Your task to perform on an android device: Open Reddit.com Image 0: 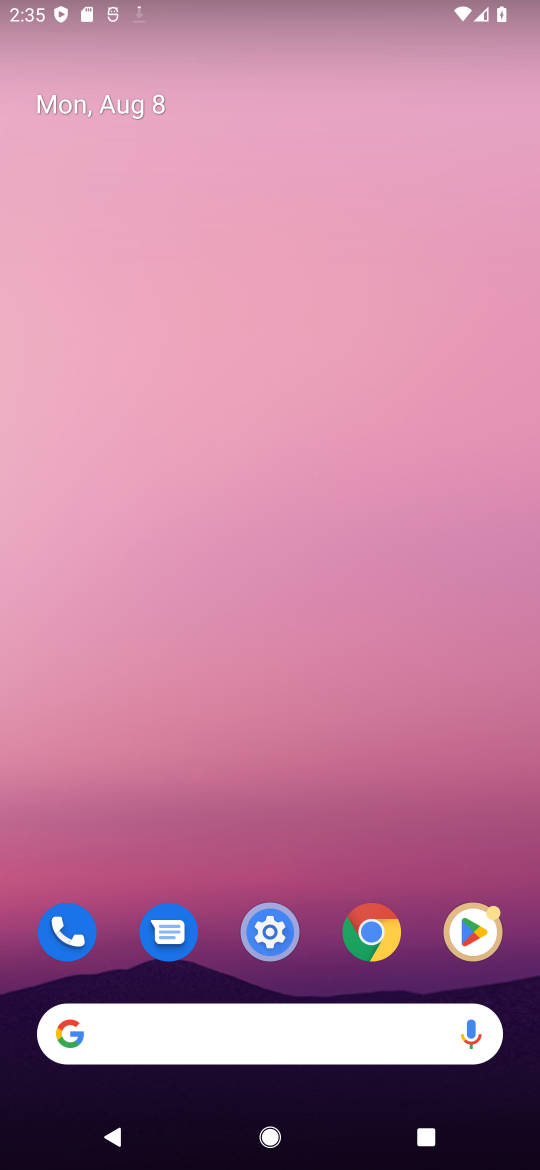
Step 0: drag from (324, 850) to (495, 206)
Your task to perform on an android device: Open Reddit.com Image 1: 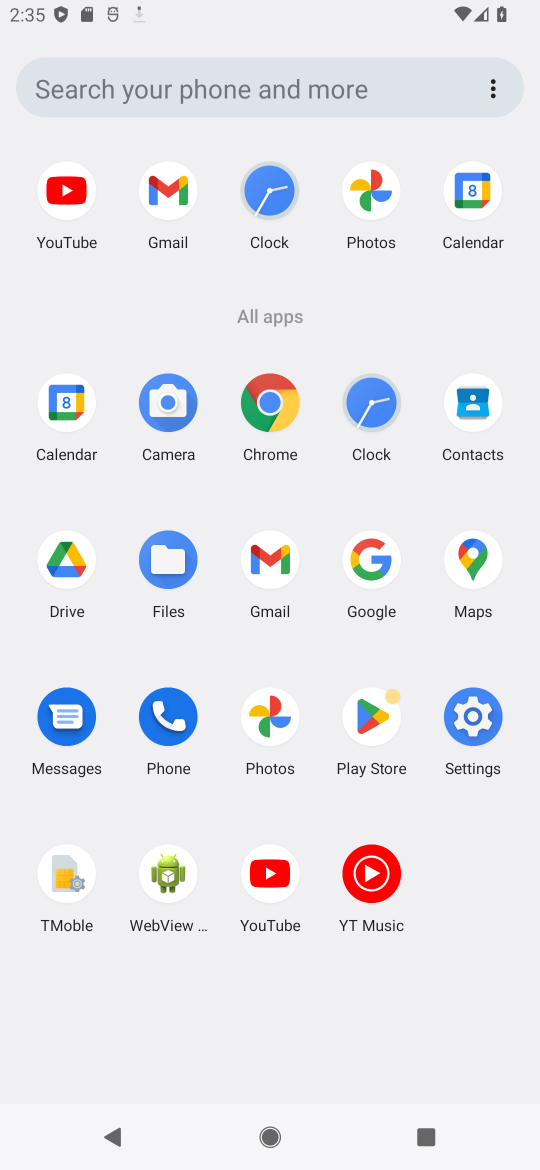
Step 1: click (271, 403)
Your task to perform on an android device: Open Reddit.com Image 2: 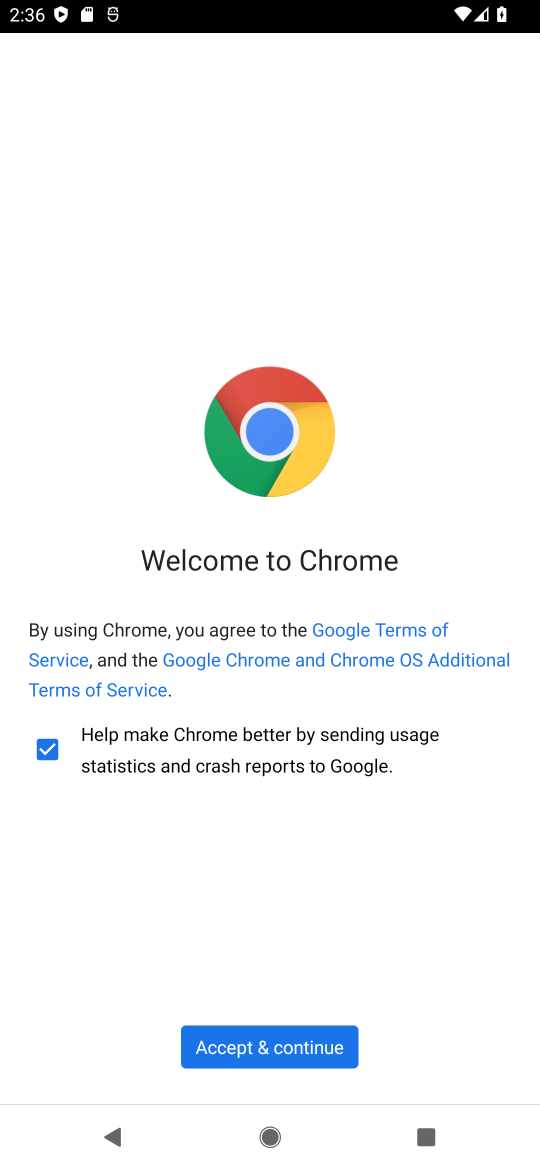
Step 2: click (337, 1032)
Your task to perform on an android device: Open Reddit.com Image 3: 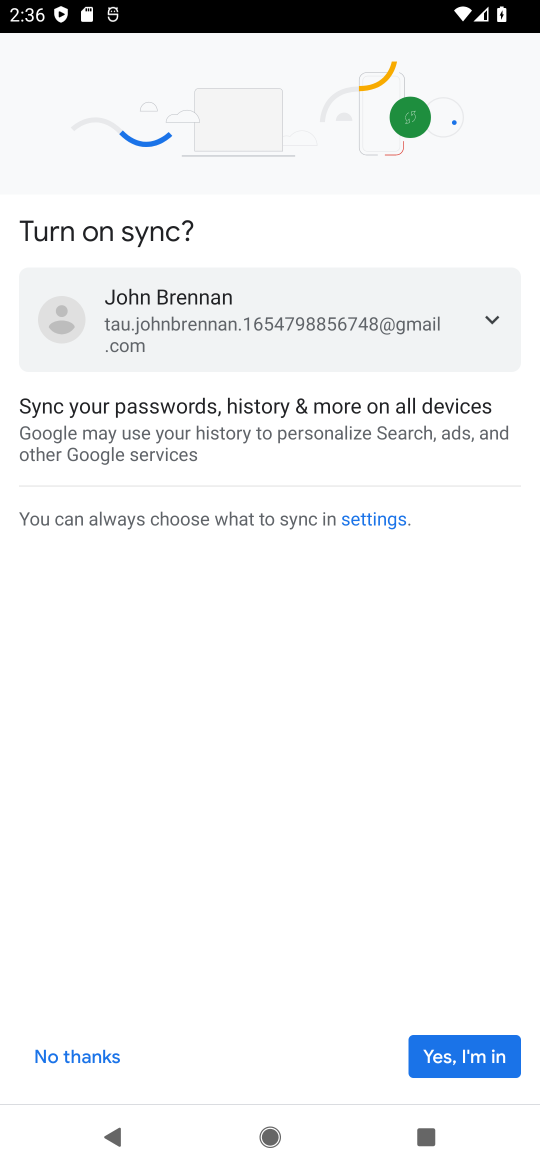
Step 3: click (471, 1048)
Your task to perform on an android device: Open Reddit.com Image 4: 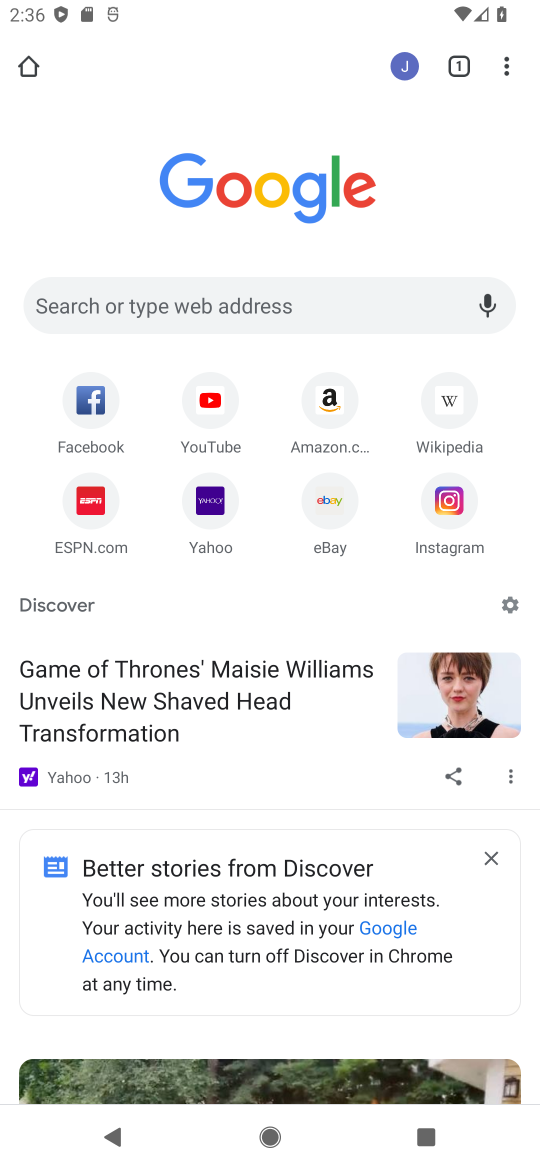
Step 4: click (303, 298)
Your task to perform on an android device: Open Reddit.com Image 5: 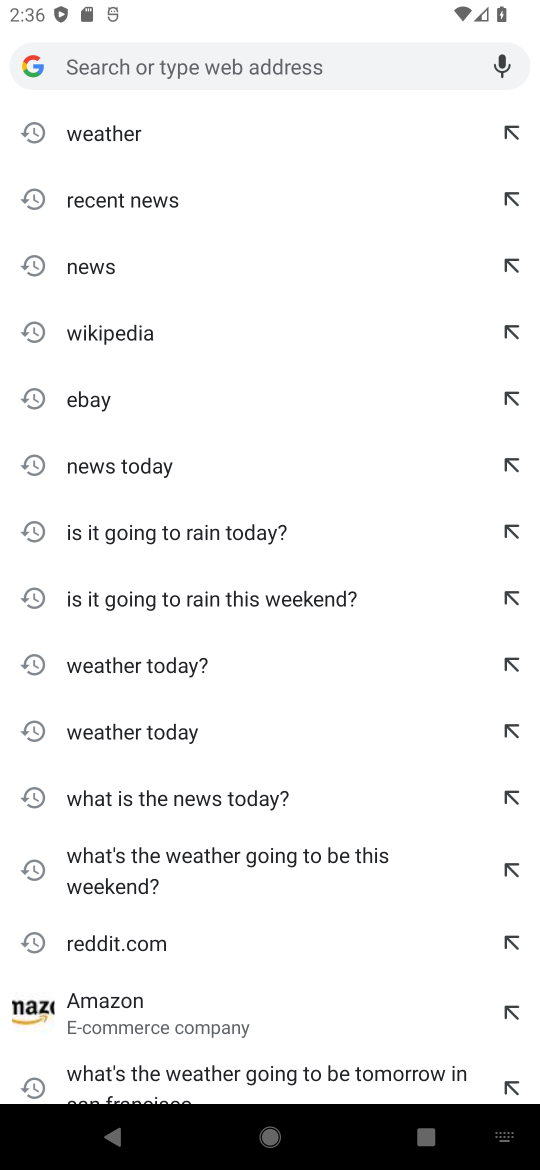
Step 5: type "Reddit.com"
Your task to perform on an android device: Open Reddit.com Image 6: 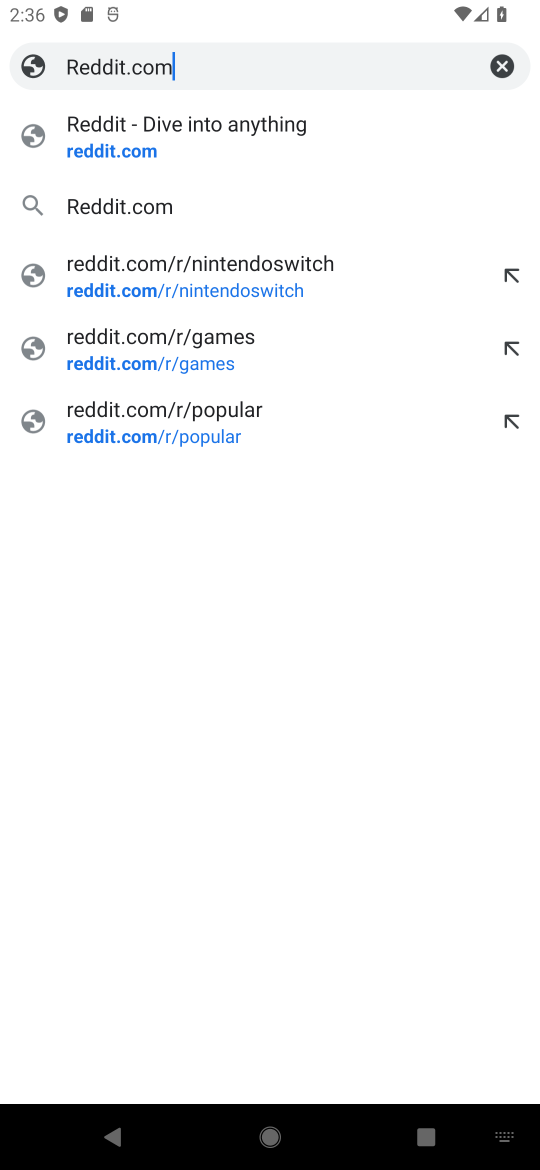
Step 6: click (119, 145)
Your task to perform on an android device: Open Reddit.com Image 7: 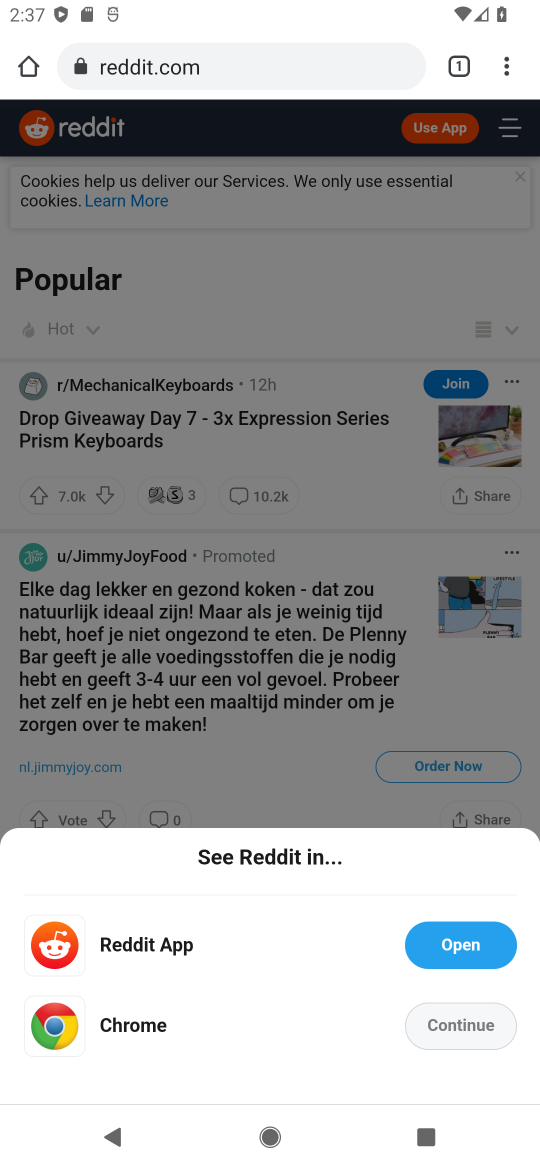
Step 7: task complete